Your task to perform on an android device: add a contact Image 0: 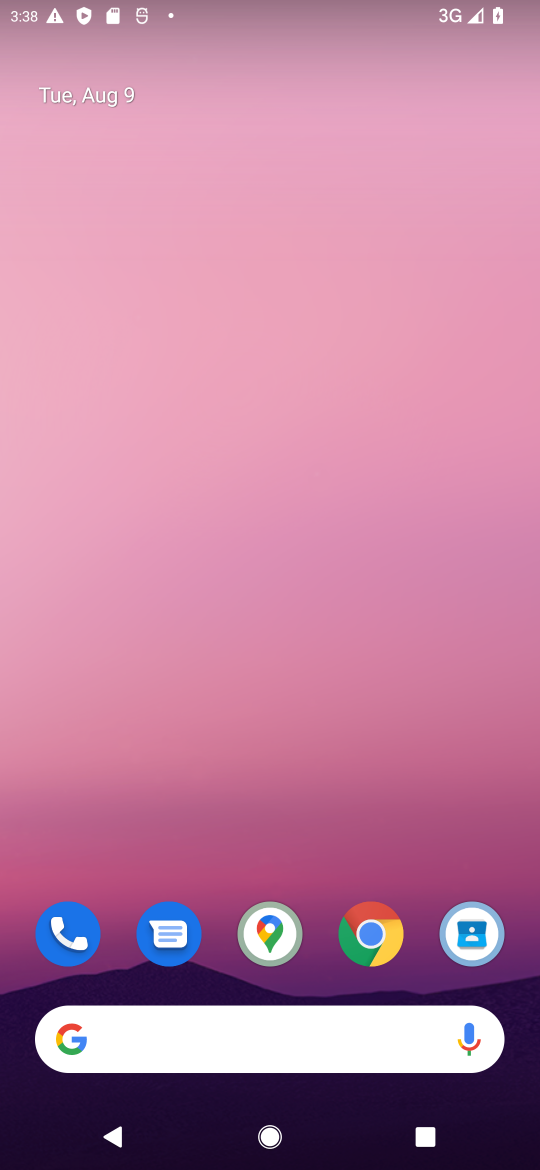
Step 0: click (457, 940)
Your task to perform on an android device: add a contact Image 1: 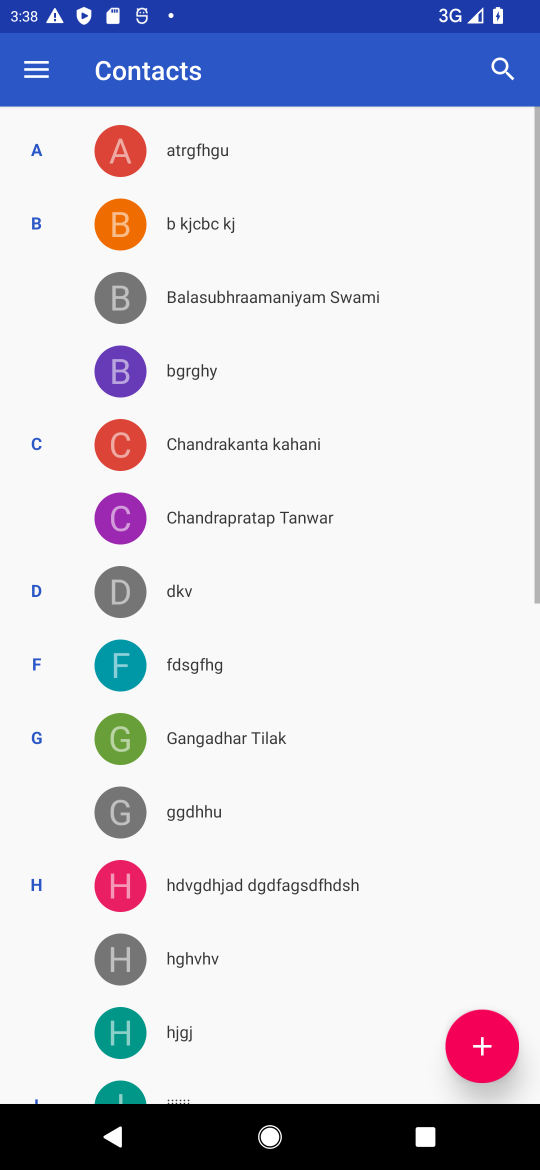
Step 1: task complete